Your task to perform on an android device: empty trash in google photos Image 0: 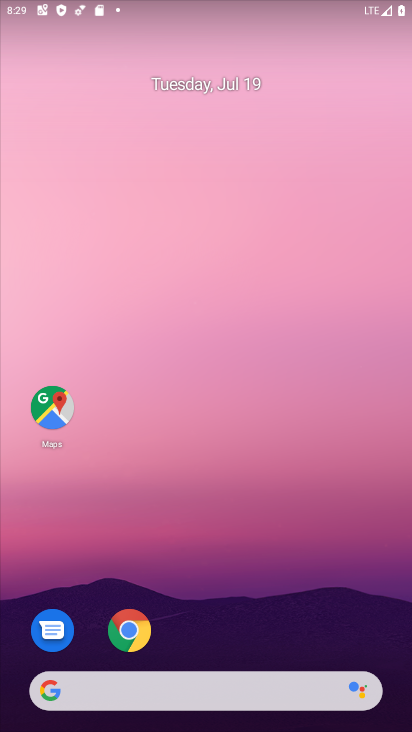
Step 0: drag from (249, 671) to (275, 139)
Your task to perform on an android device: empty trash in google photos Image 1: 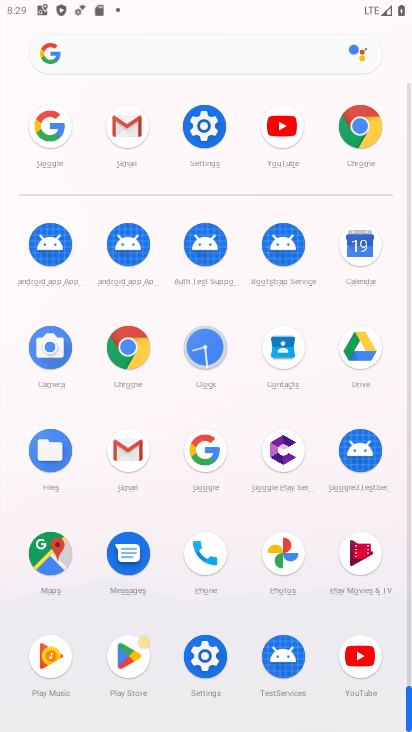
Step 1: click (286, 563)
Your task to perform on an android device: empty trash in google photos Image 2: 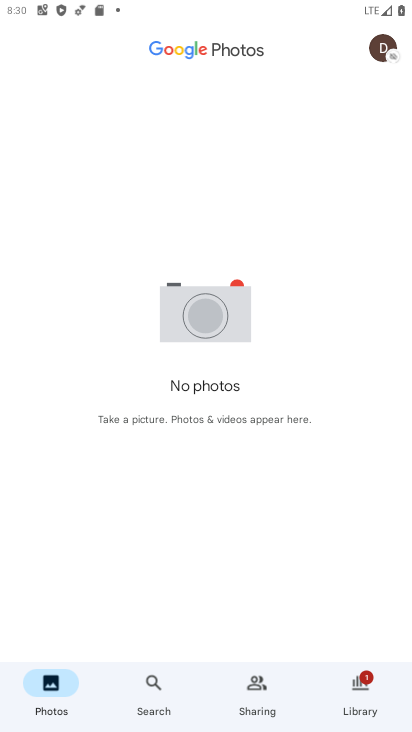
Step 2: click (387, 46)
Your task to perform on an android device: empty trash in google photos Image 3: 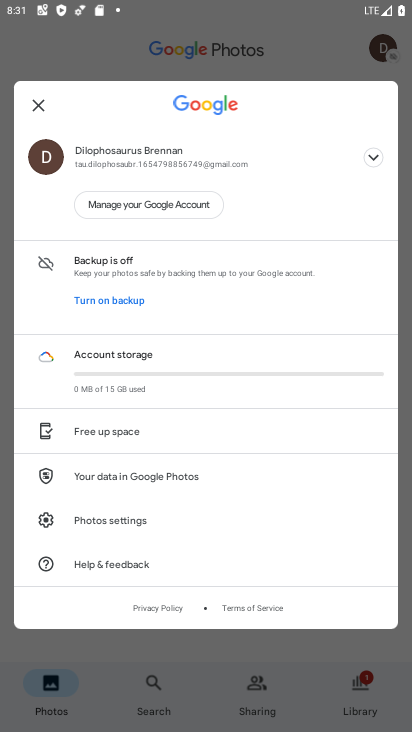
Step 3: task complete